Your task to perform on an android device: Open Youtube and go to the subscriptions tab Image 0: 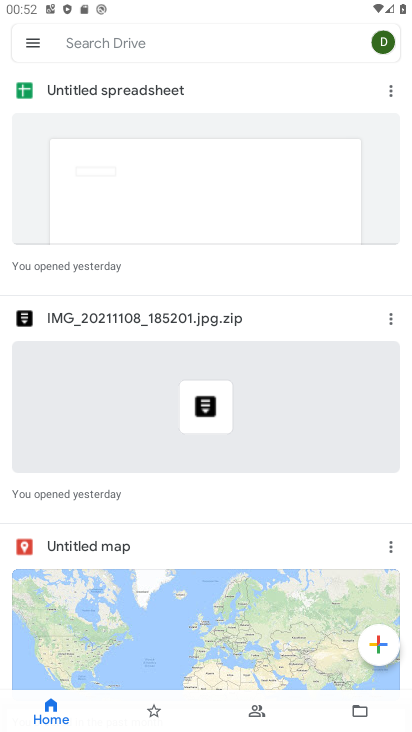
Step 0: press home button
Your task to perform on an android device: Open Youtube and go to the subscriptions tab Image 1: 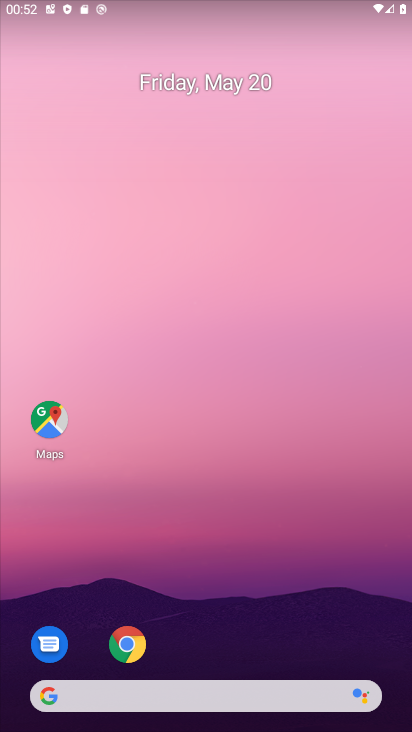
Step 1: drag from (340, 660) to (376, 2)
Your task to perform on an android device: Open Youtube and go to the subscriptions tab Image 2: 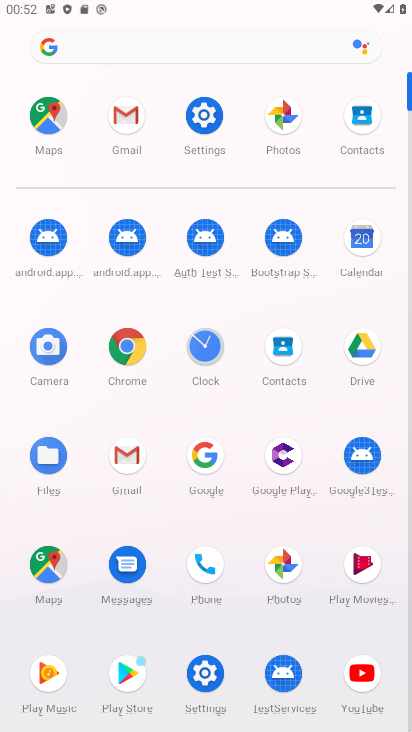
Step 2: click (360, 676)
Your task to perform on an android device: Open Youtube and go to the subscriptions tab Image 3: 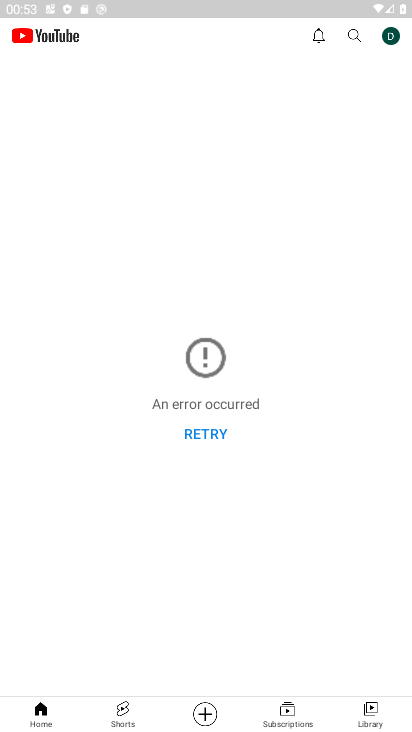
Step 3: click (281, 715)
Your task to perform on an android device: Open Youtube and go to the subscriptions tab Image 4: 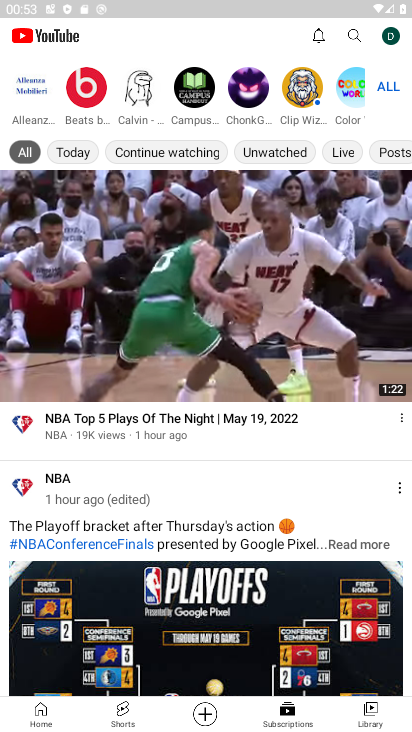
Step 4: task complete